Your task to perform on an android device: Clear the cart on target.com. Add razer kraken to the cart on target.com Image 0: 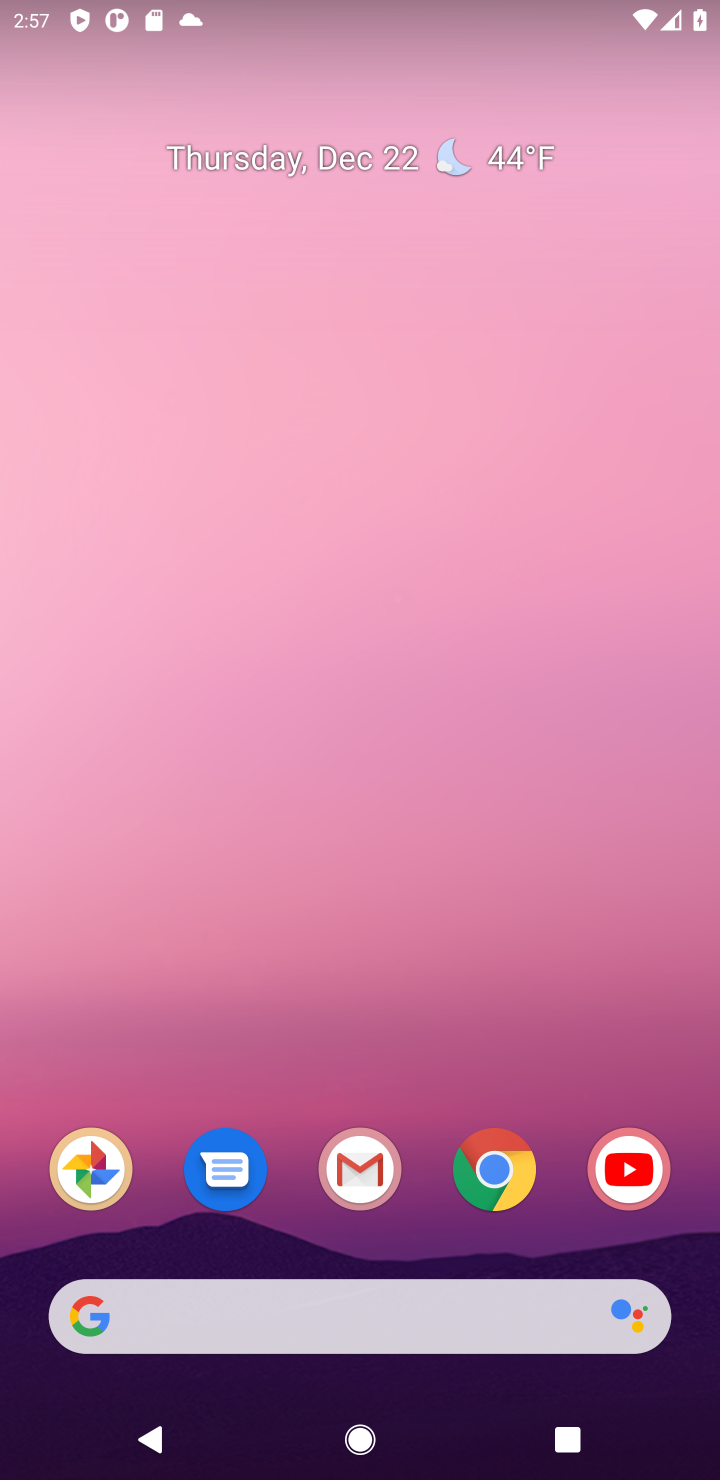
Step 0: click (497, 1172)
Your task to perform on an android device: Clear the cart on target.com. Add razer kraken to the cart on target.com Image 1: 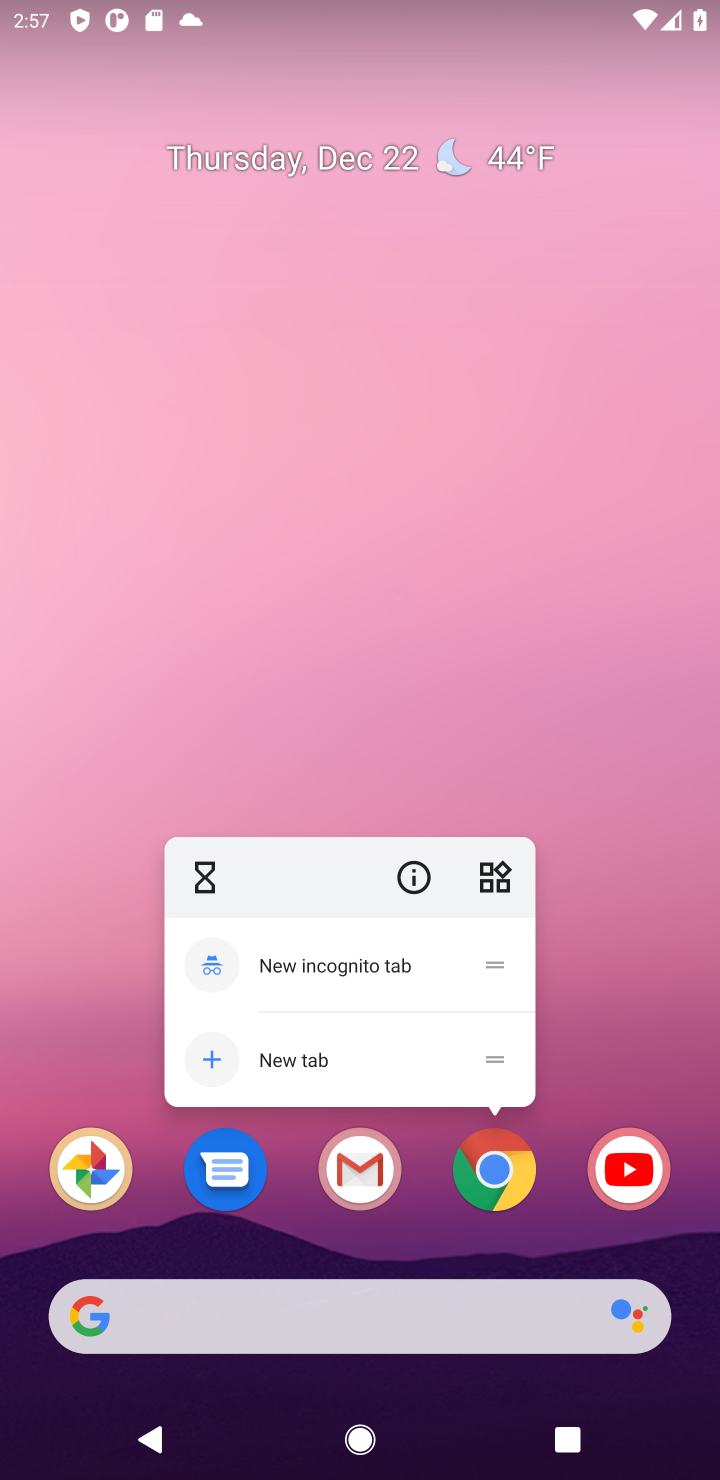
Step 1: click (497, 1172)
Your task to perform on an android device: Clear the cart on target.com. Add razer kraken to the cart on target.com Image 2: 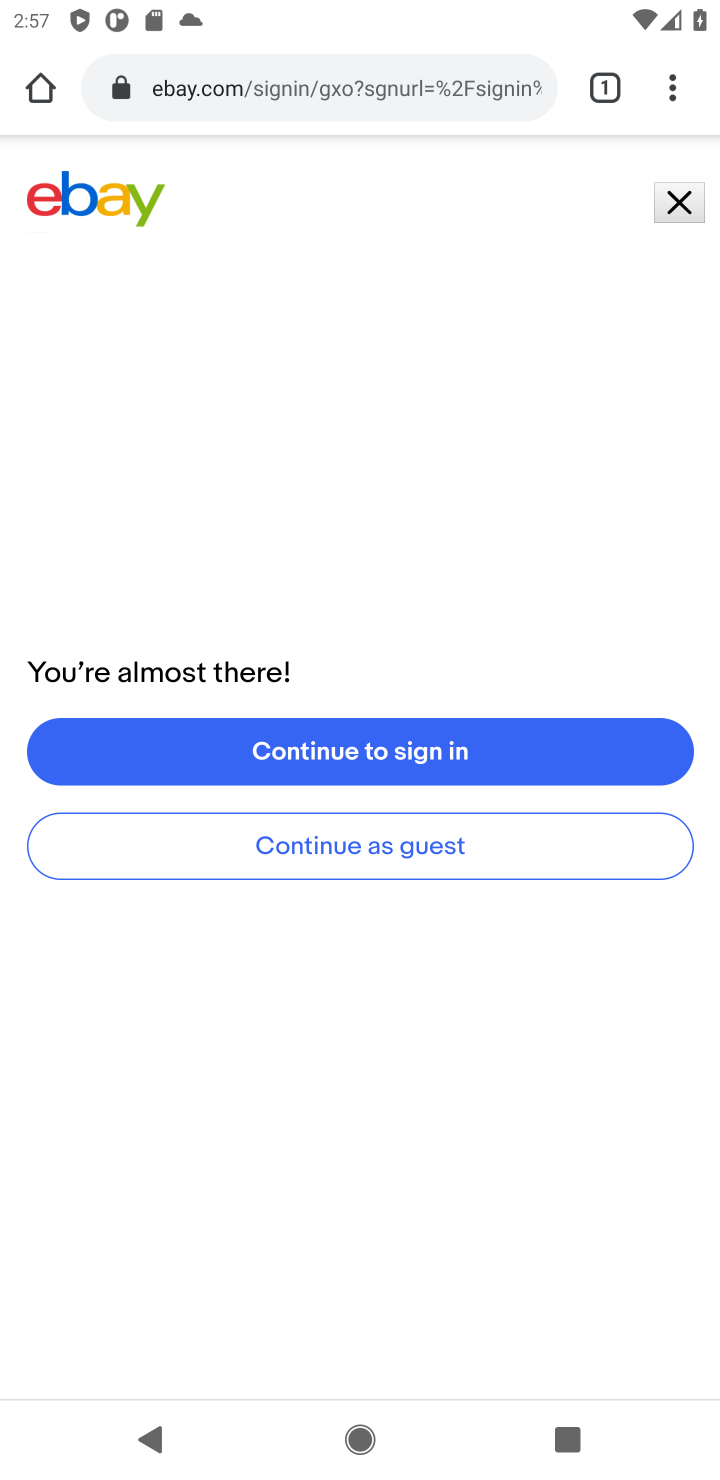
Step 2: click (219, 89)
Your task to perform on an android device: Clear the cart on target.com. Add razer kraken to the cart on target.com Image 3: 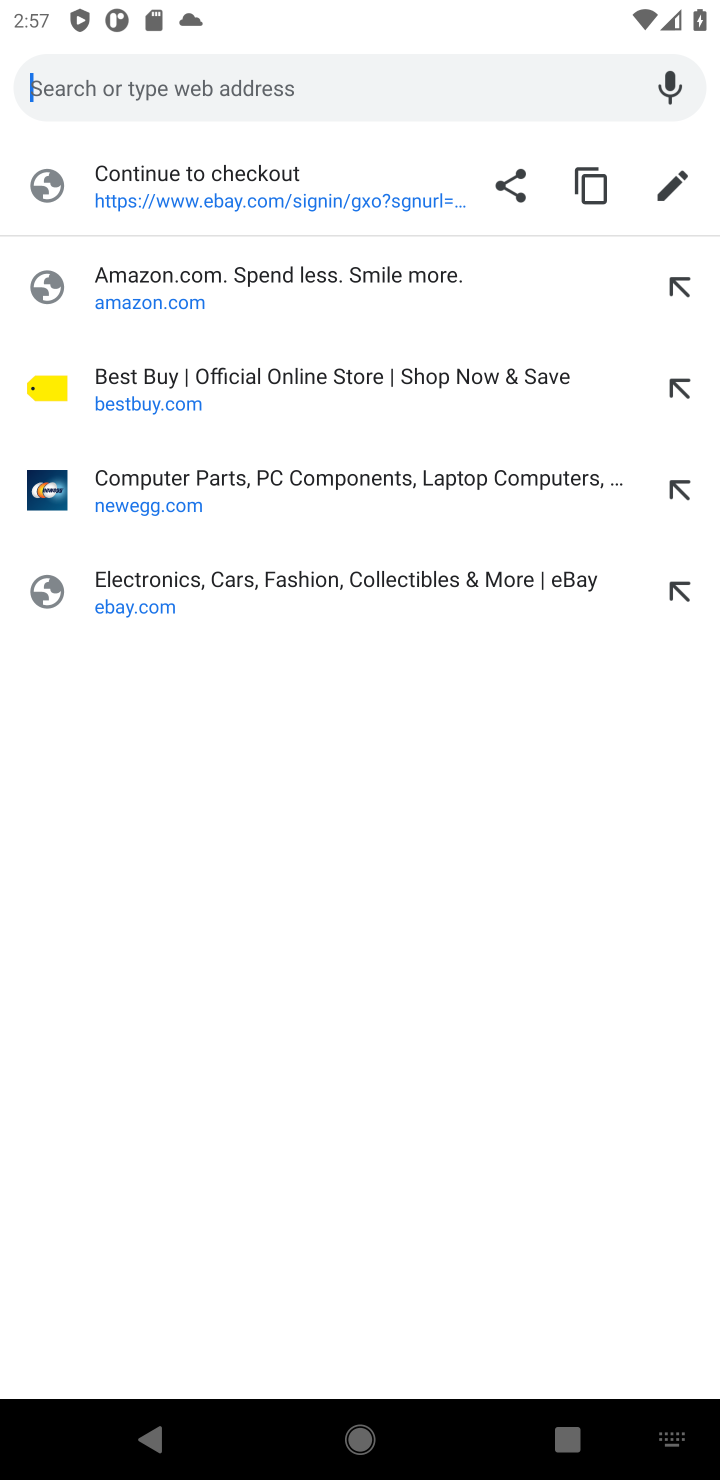
Step 3: type "target.com"
Your task to perform on an android device: Clear the cart on target.com. Add razer kraken to the cart on target.com Image 4: 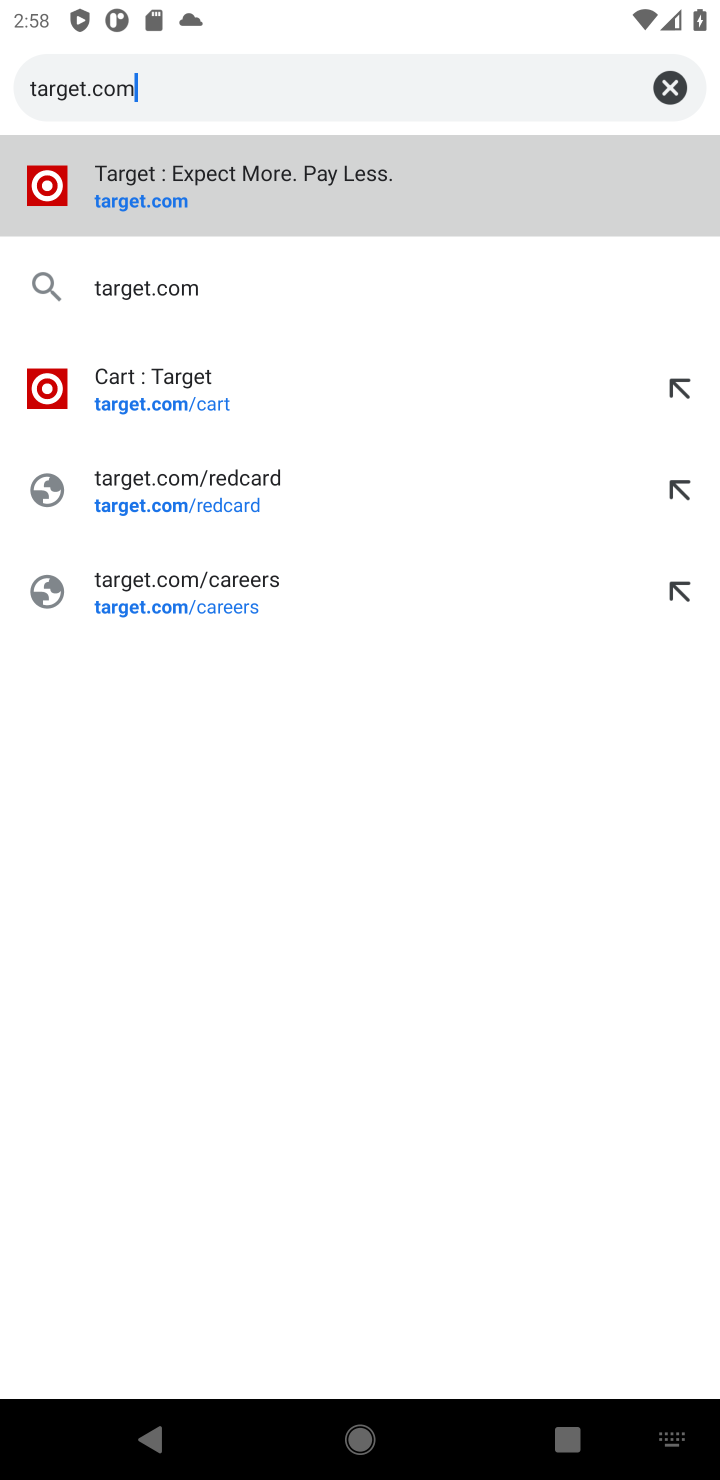
Step 4: click (109, 197)
Your task to perform on an android device: Clear the cart on target.com. Add razer kraken to the cart on target.com Image 5: 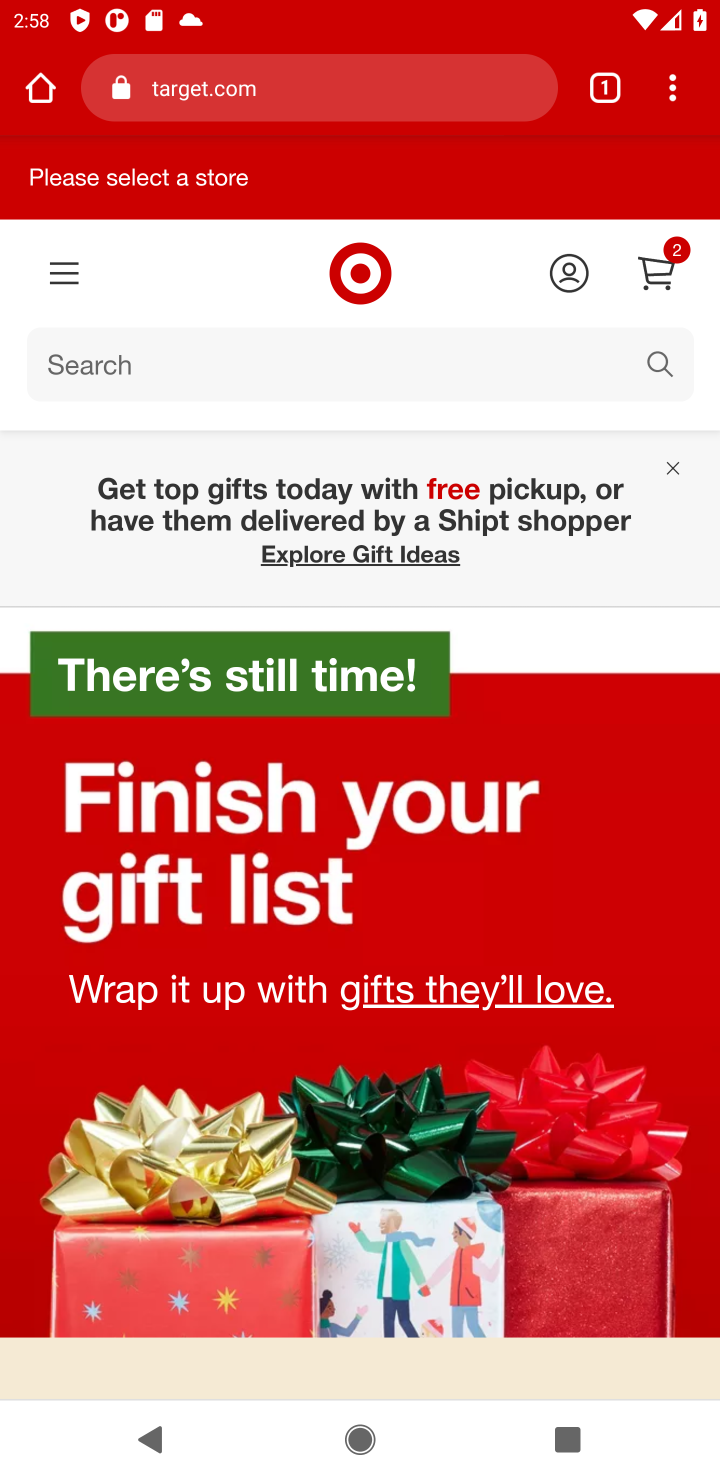
Step 5: click (654, 276)
Your task to perform on an android device: Clear the cart on target.com. Add razer kraken to the cart on target.com Image 6: 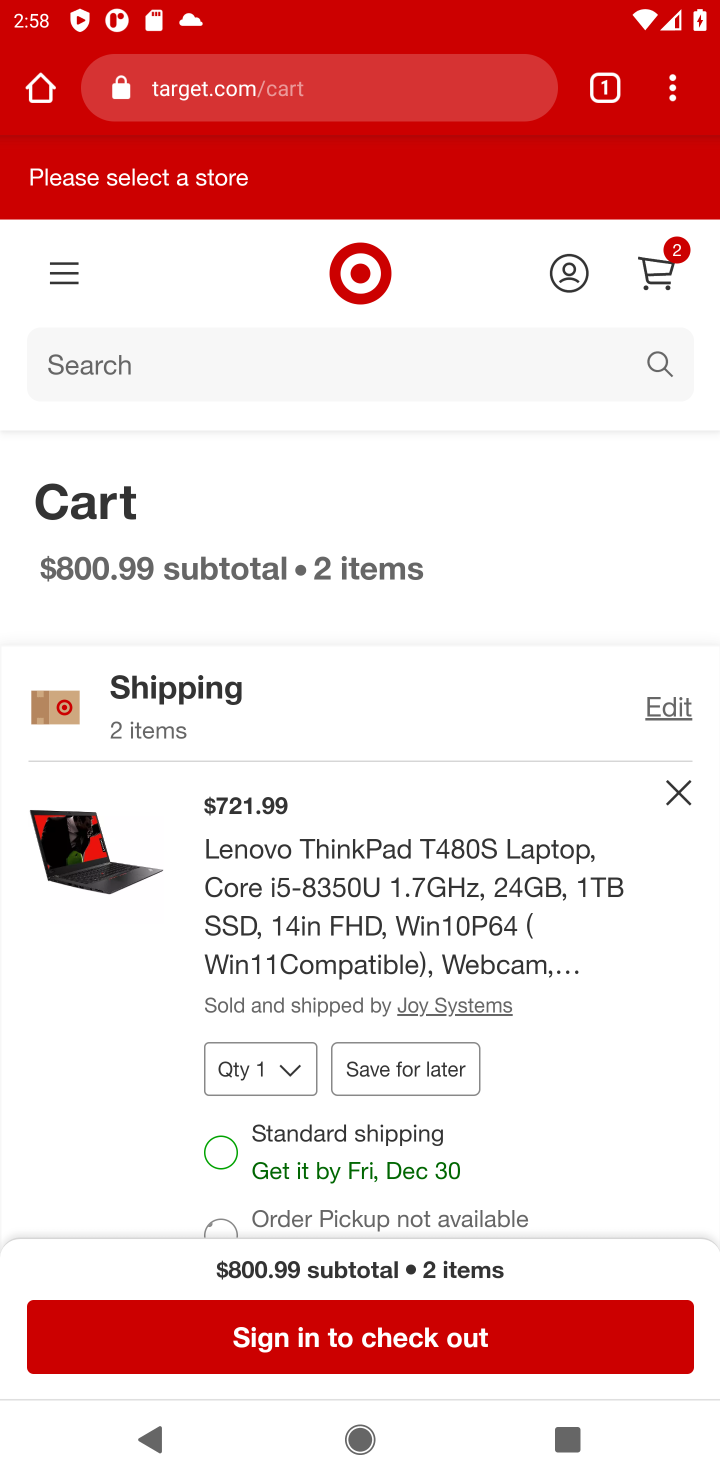
Step 6: click (680, 789)
Your task to perform on an android device: Clear the cart on target.com. Add razer kraken to the cart on target.com Image 7: 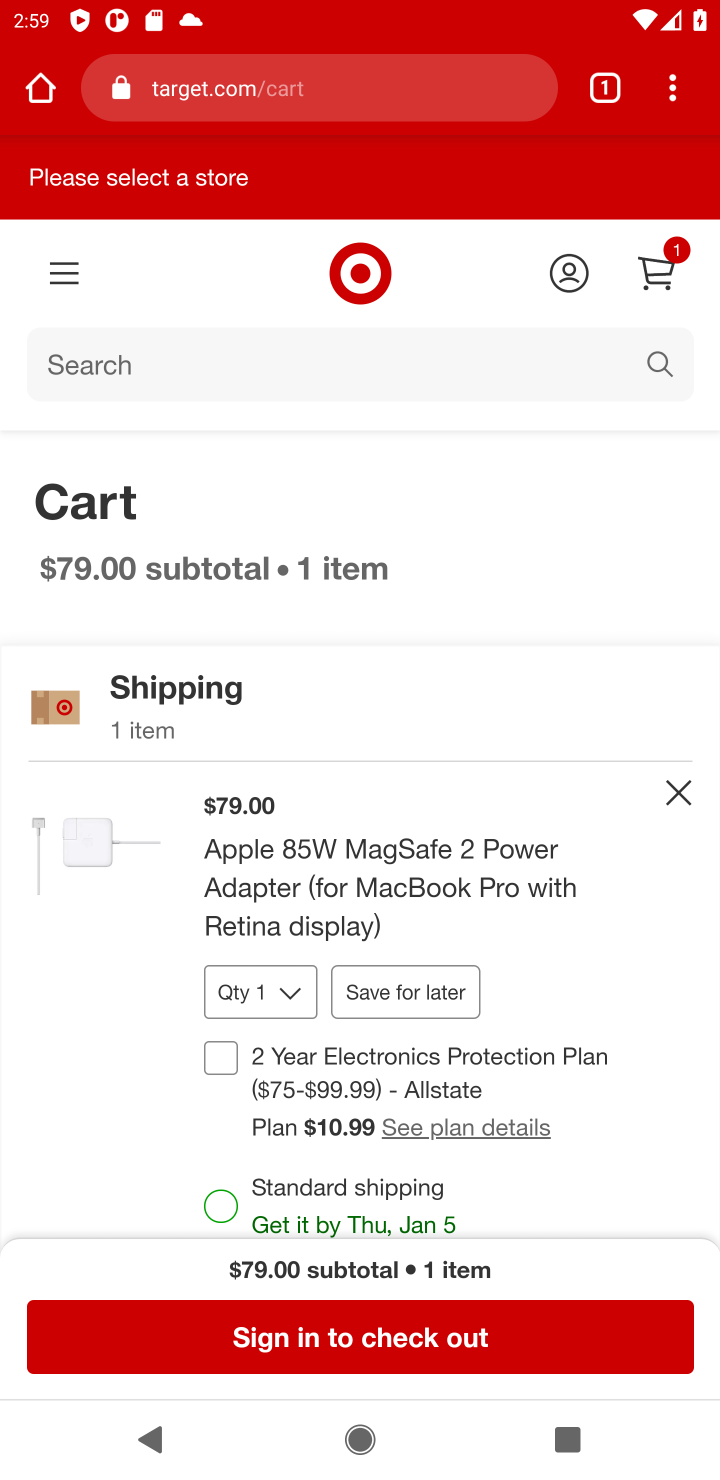
Step 7: click (687, 806)
Your task to perform on an android device: Clear the cart on target.com. Add razer kraken to the cart on target.com Image 8: 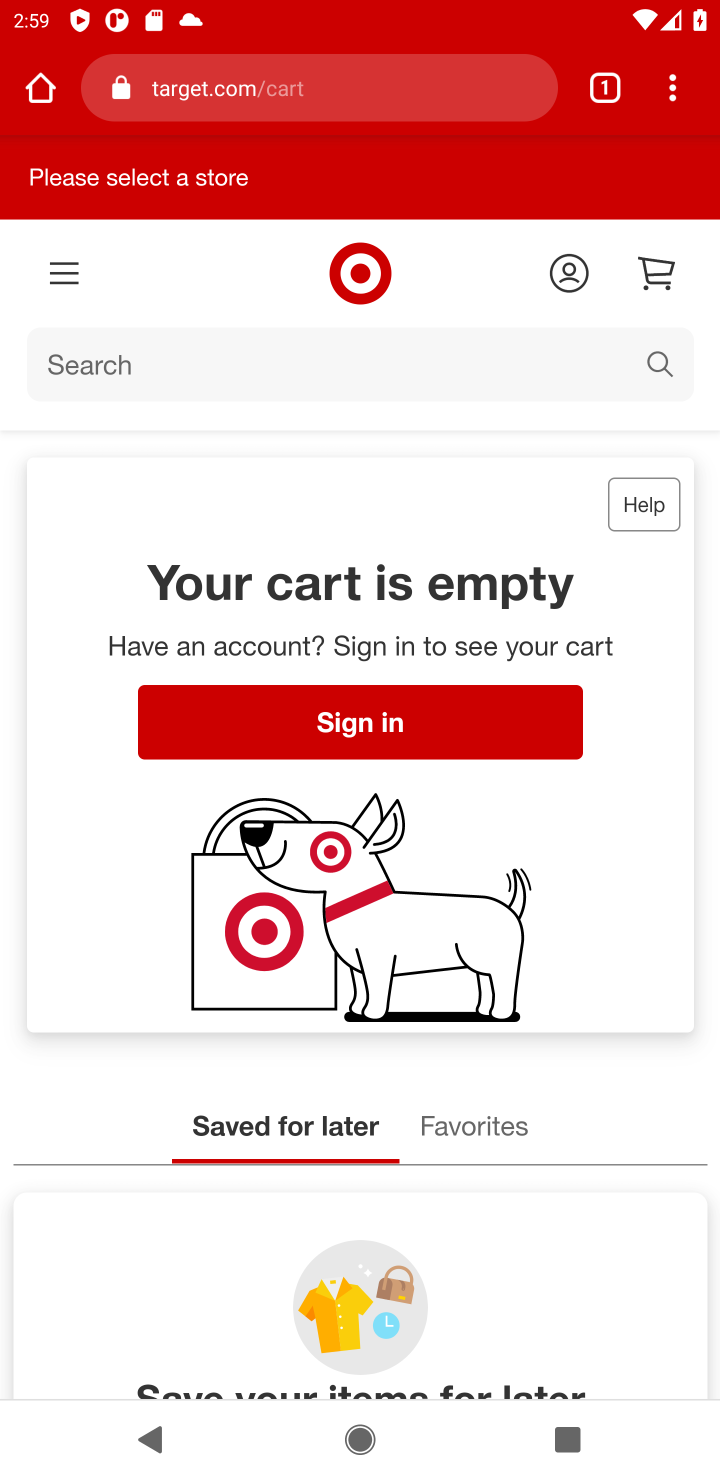
Step 8: click (97, 364)
Your task to perform on an android device: Clear the cart on target.com. Add razer kraken to the cart on target.com Image 9: 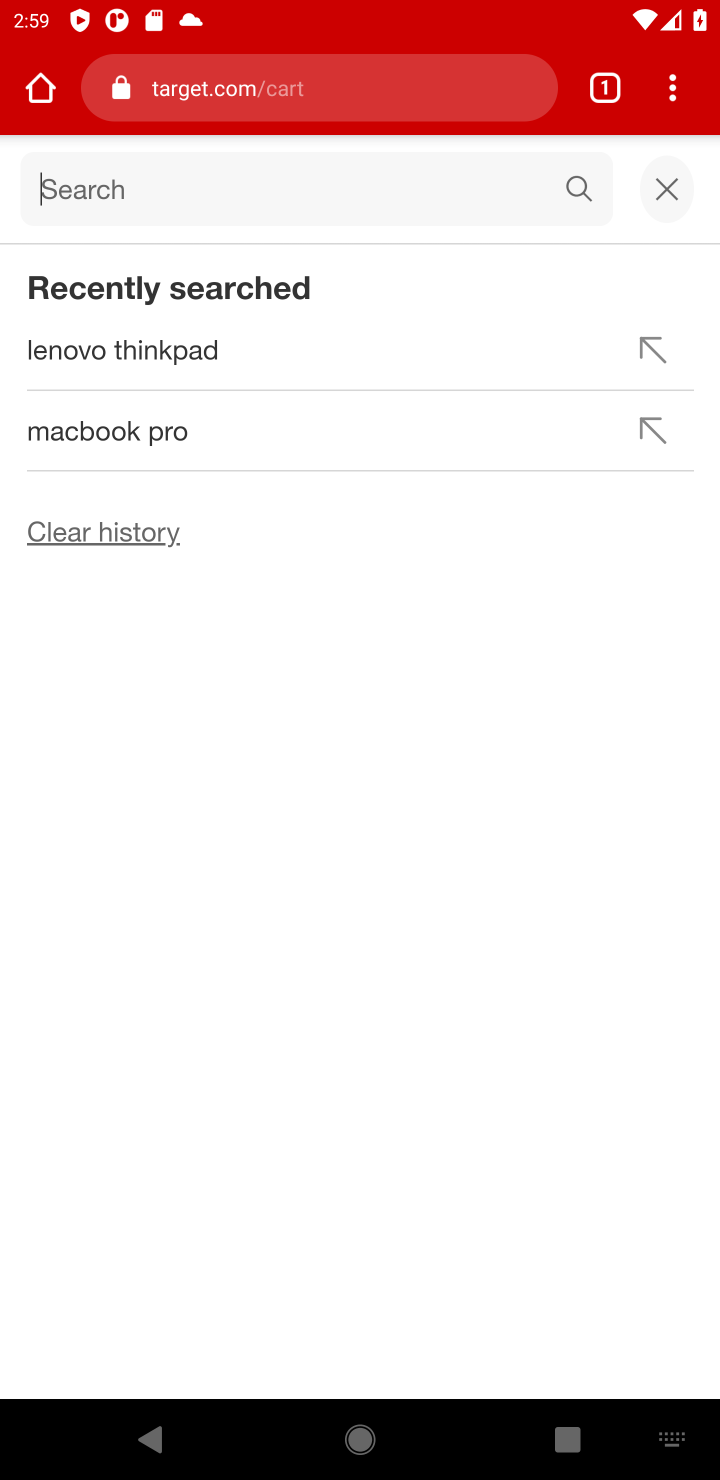
Step 9: type "razer kraken"
Your task to perform on an android device: Clear the cart on target.com. Add razer kraken to the cart on target.com Image 10: 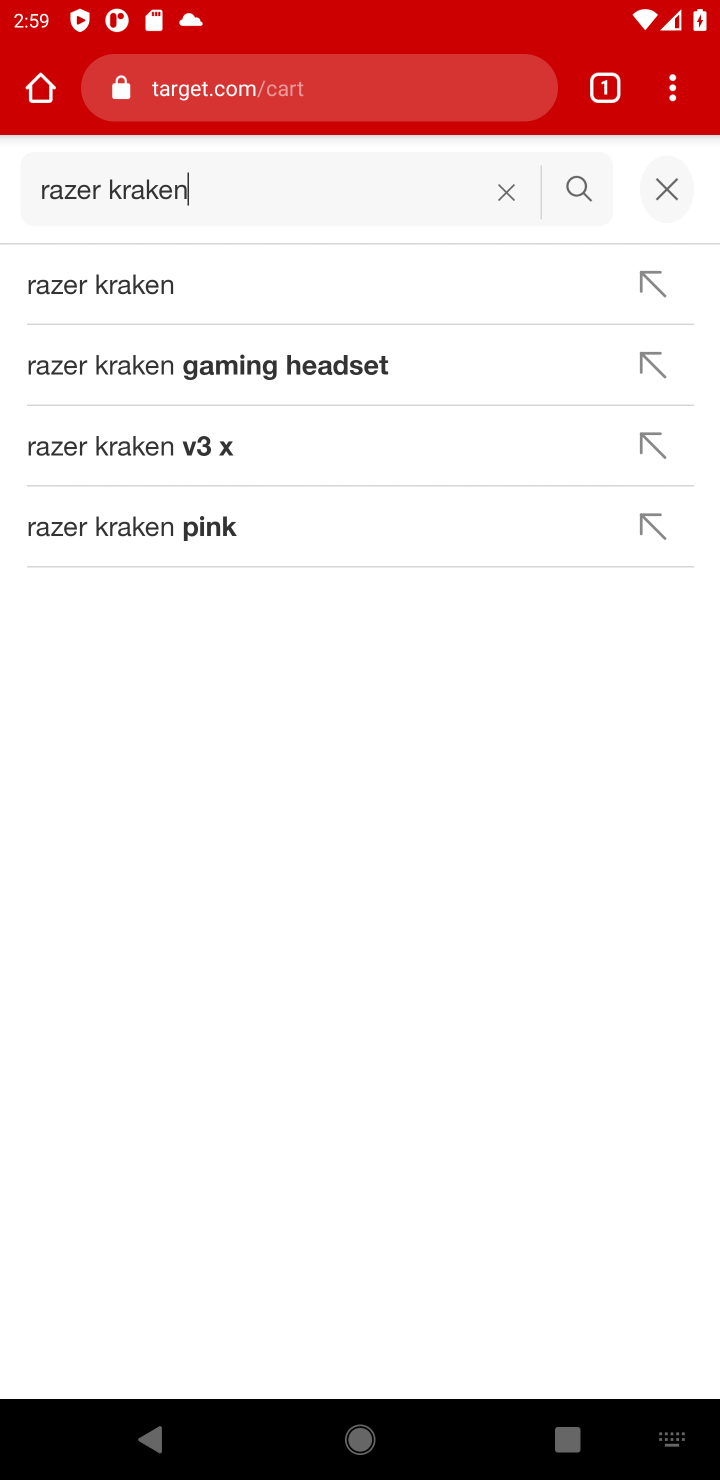
Step 10: click (77, 292)
Your task to perform on an android device: Clear the cart on target.com. Add razer kraken to the cart on target.com Image 11: 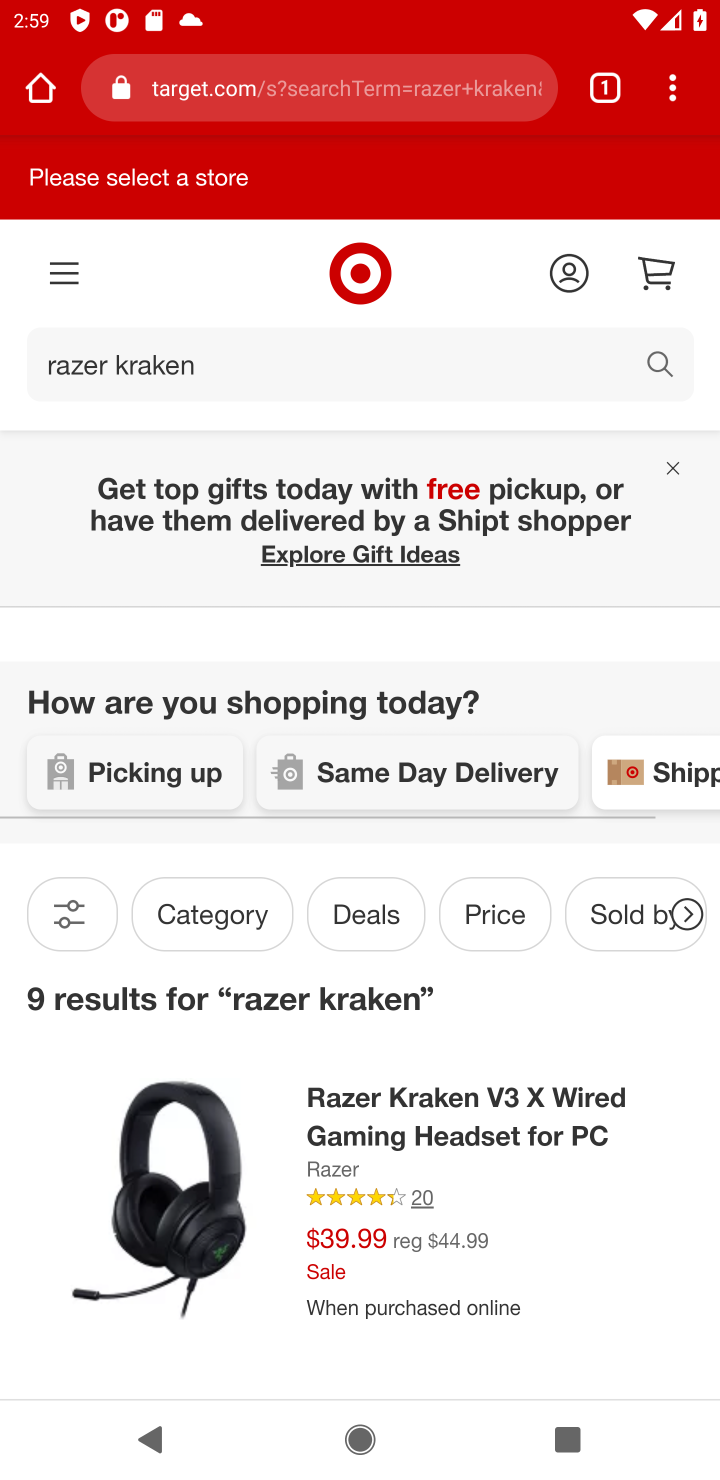
Step 11: drag from (355, 1042) to (377, 505)
Your task to perform on an android device: Clear the cart on target.com. Add razer kraken to the cart on target.com Image 12: 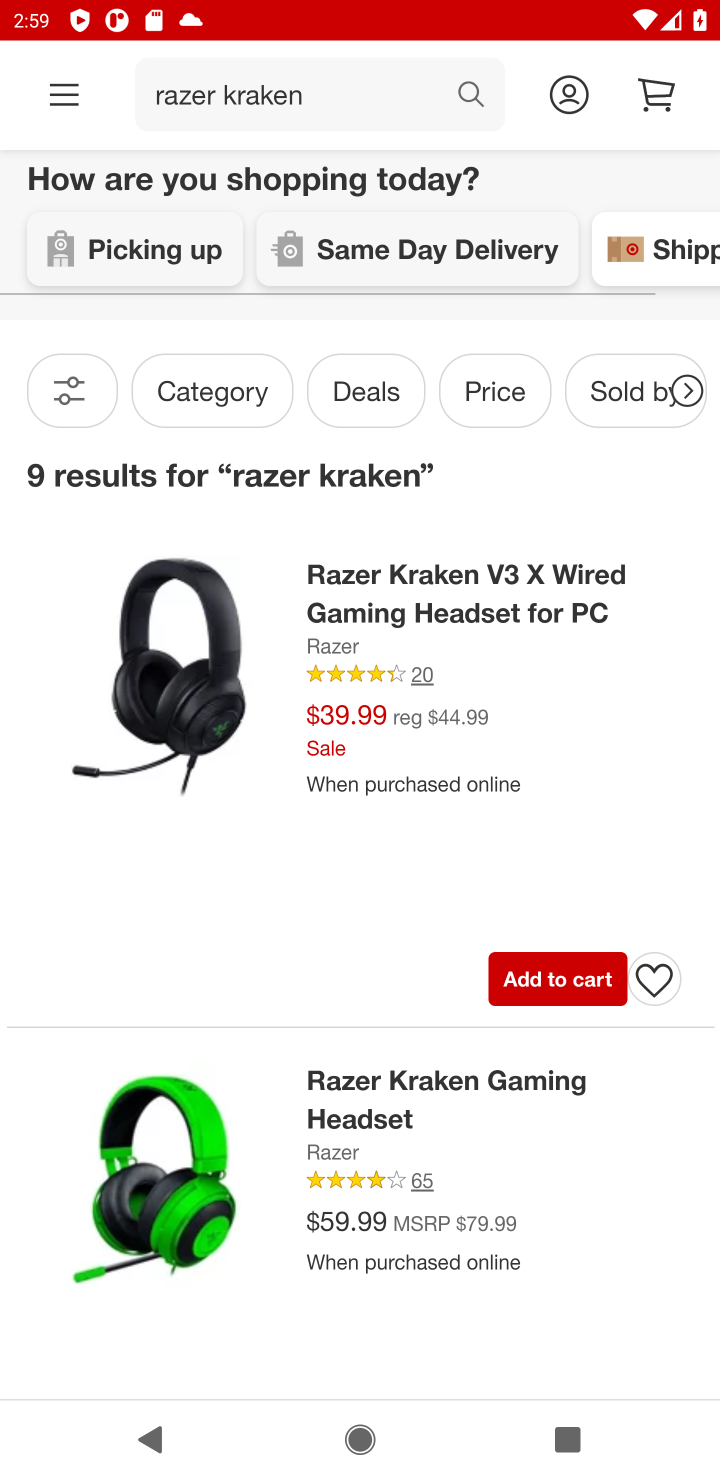
Step 12: click (555, 988)
Your task to perform on an android device: Clear the cart on target.com. Add razer kraken to the cart on target.com Image 13: 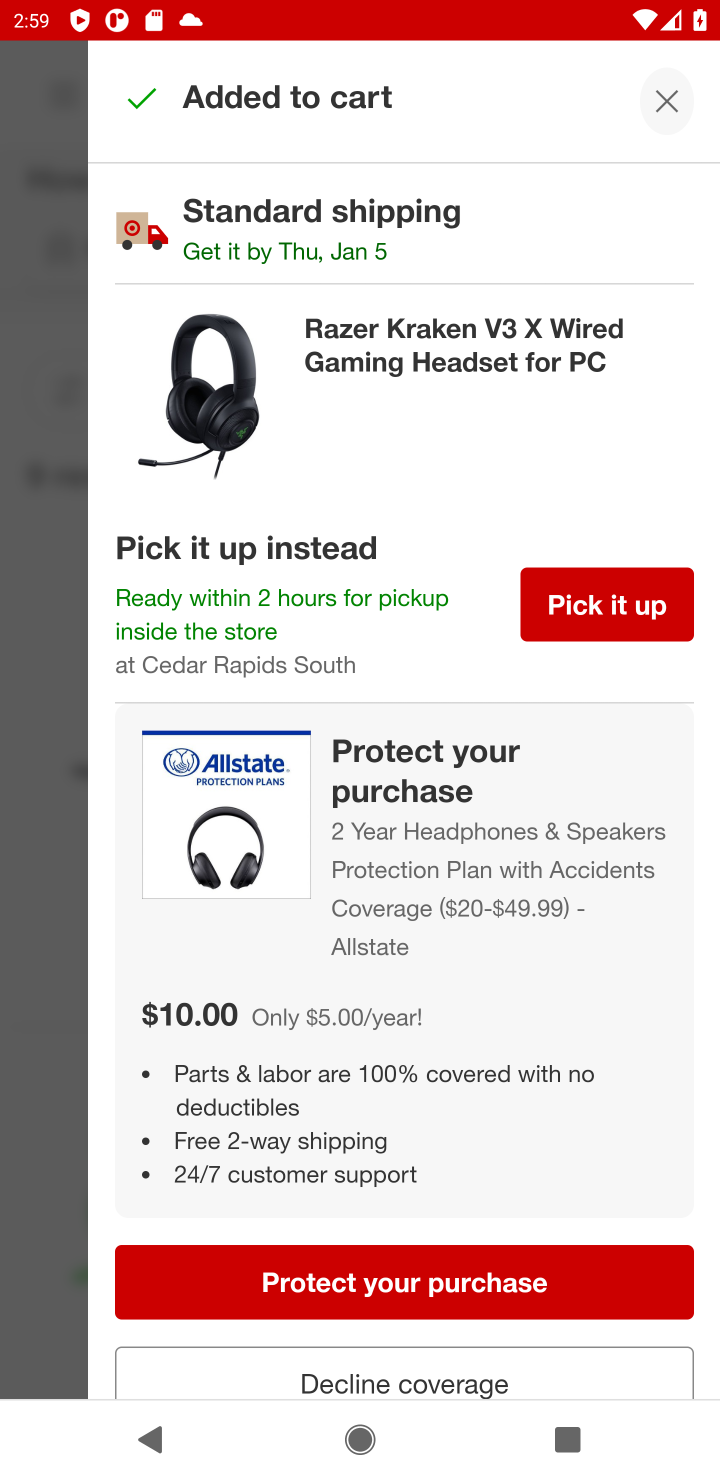
Step 13: task complete